Your task to perform on an android device: change the clock display to analog Image 0: 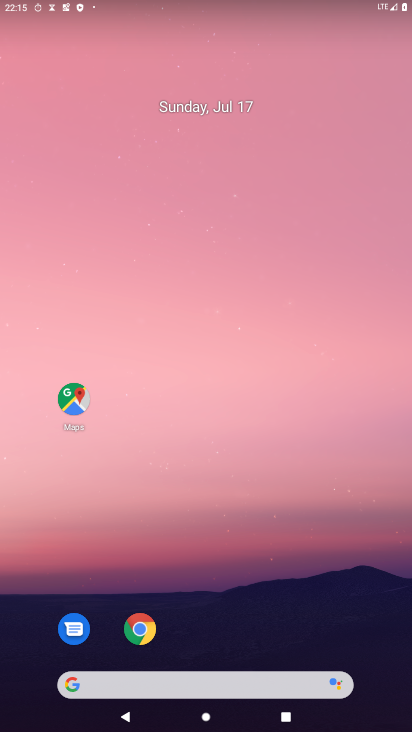
Step 0: drag from (237, 723) to (228, 121)
Your task to perform on an android device: change the clock display to analog Image 1: 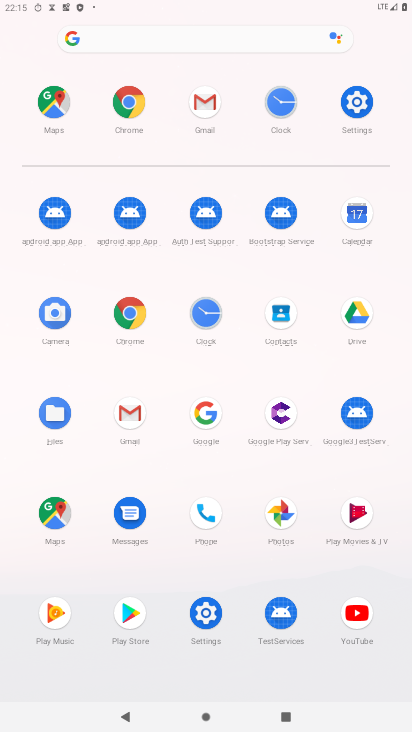
Step 1: click (211, 316)
Your task to perform on an android device: change the clock display to analog Image 2: 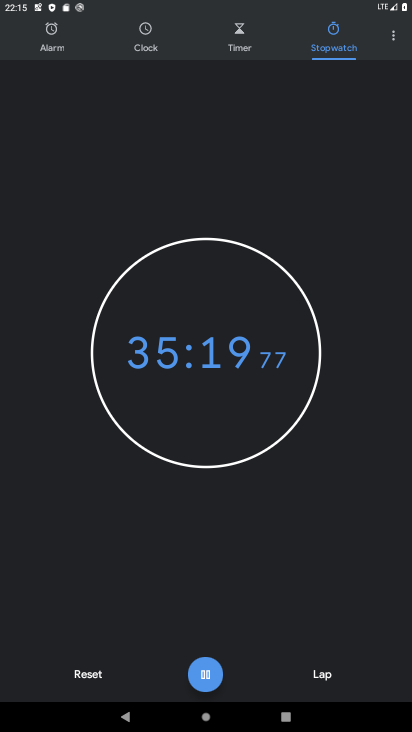
Step 2: click (394, 37)
Your task to perform on an android device: change the clock display to analog Image 3: 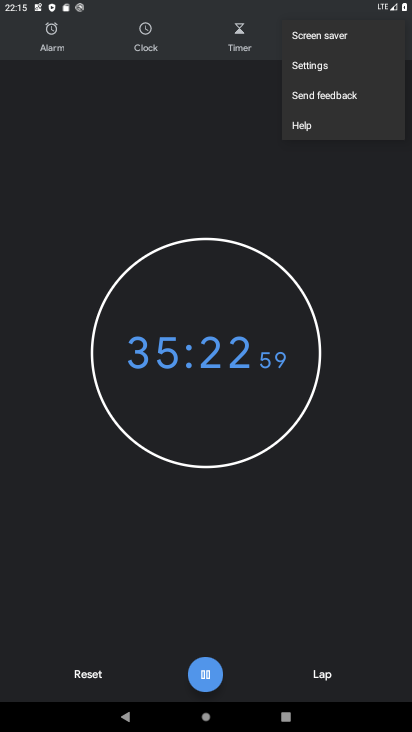
Step 3: click (314, 64)
Your task to perform on an android device: change the clock display to analog Image 4: 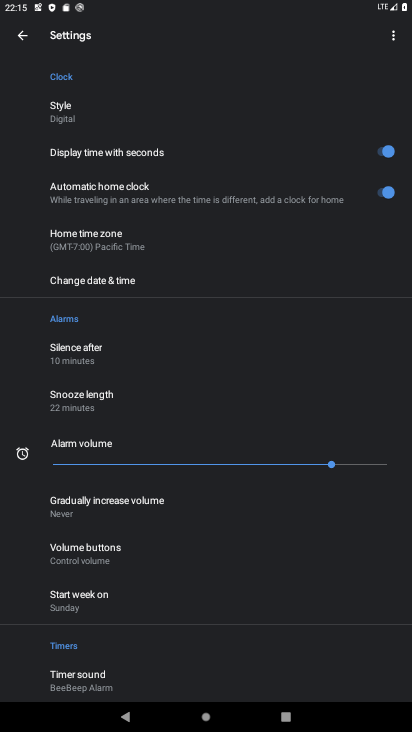
Step 4: click (62, 114)
Your task to perform on an android device: change the clock display to analog Image 5: 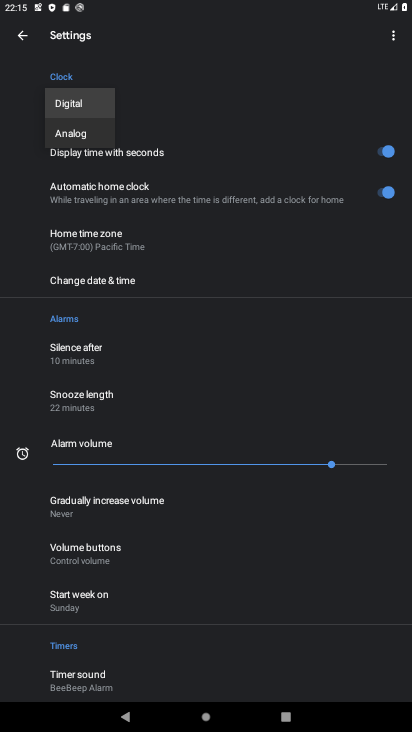
Step 5: click (70, 131)
Your task to perform on an android device: change the clock display to analog Image 6: 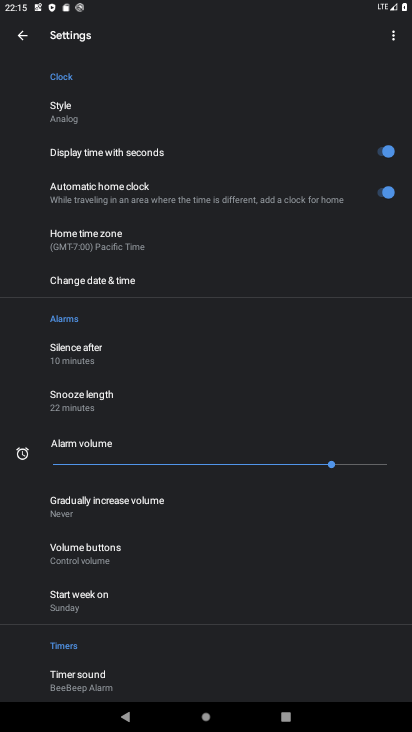
Step 6: task complete